Your task to perform on an android device: change alarm snooze length Image 0: 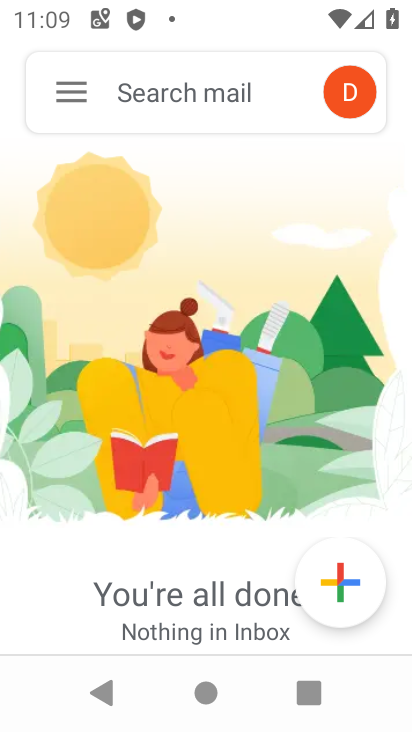
Step 0: press home button
Your task to perform on an android device: change alarm snooze length Image 1: 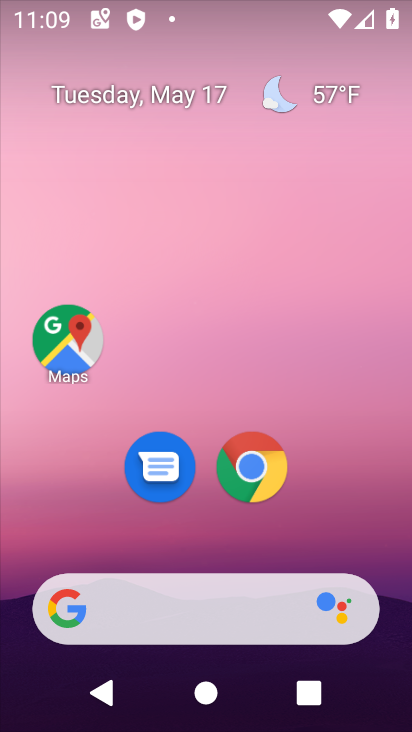
Step 1: drag from (258, 667) to (352, 107)
Your task to perform on an android device: change alarm snooze length Image 2: 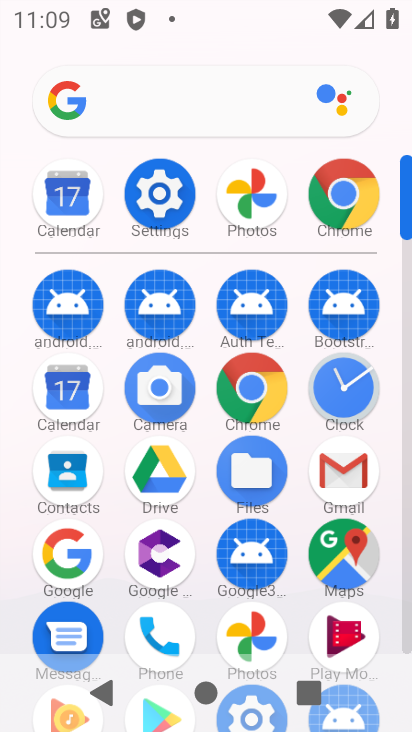
Step 2: click (340, 379)
Your task to perform on an android device: change alarm snooze length Image 3: 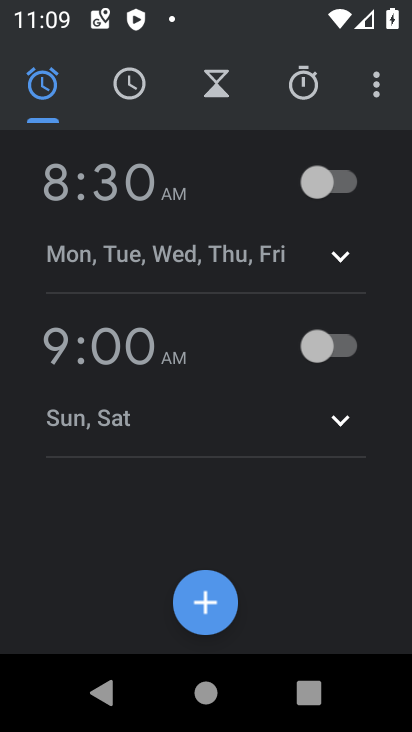
Step 3: click (372, 109)
Your task to perform on an android device: change alarm snooze length Image 4: 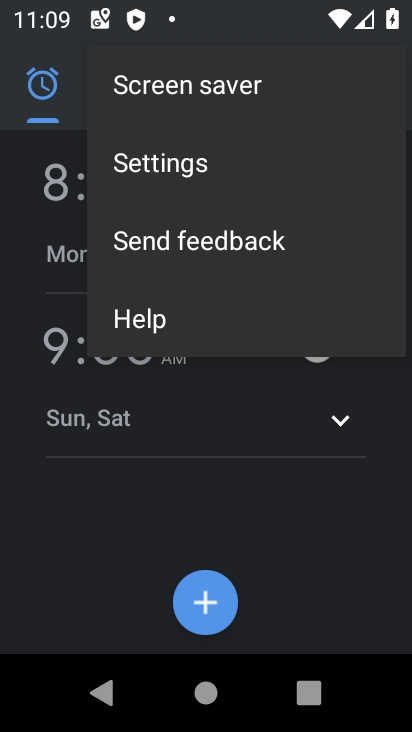
Step 4: click (192, 170)
Your task to perform on an android device: change alarm snooze length Image 5: 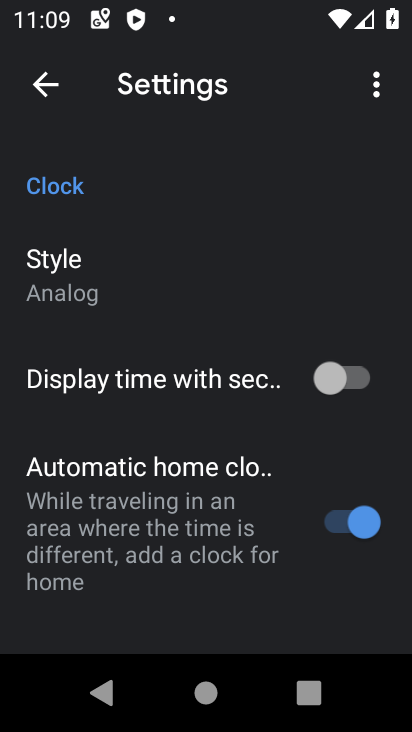
Step 5: drag from (187, 493) to (310, 268)
Your task to perform on an android device: change alarm snooze length Image 6: 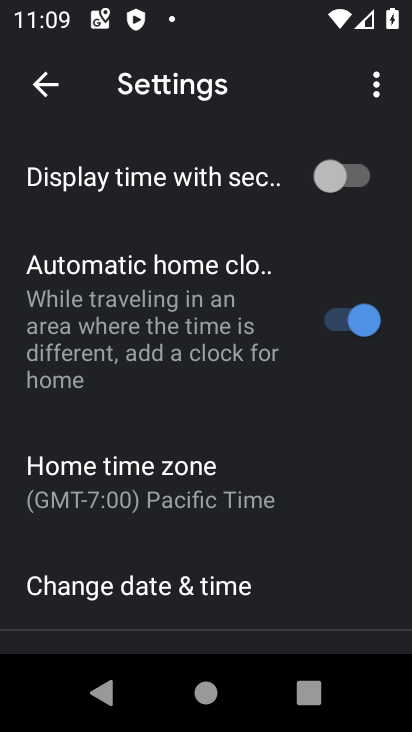
Step 6: drag from (198, 536) to (212, 413)
Your task to perform on an android device: change alarm snooze length Image 7: 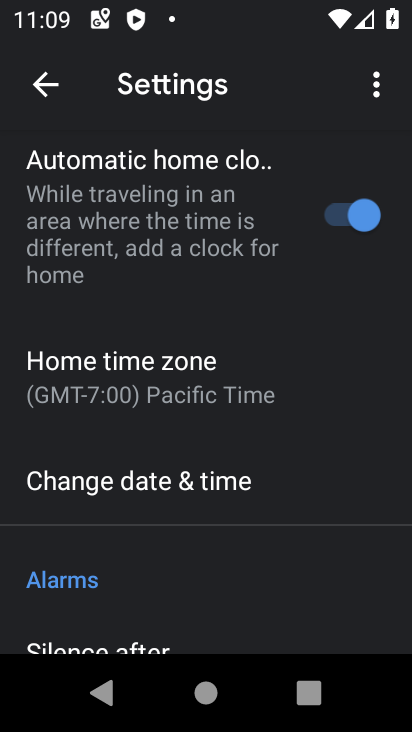
Step 7: drag from (175, 526) to (248, 296)
Your task to perform on an android device: change alarm snooze length Image 8: 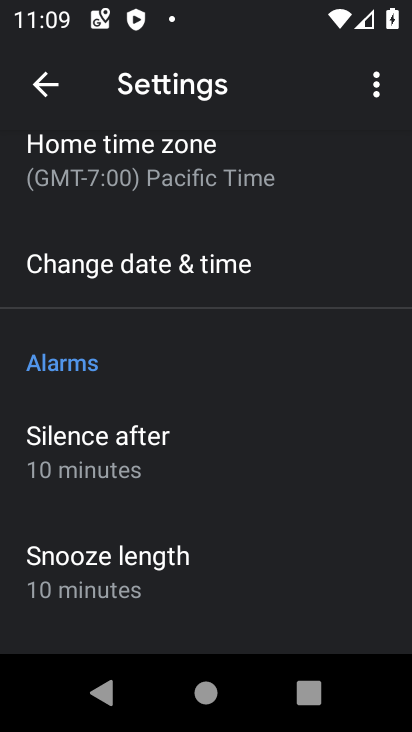
Step 8: click (124, 536)
Your task to perform on an android device: change alarm snooze length Image 9: 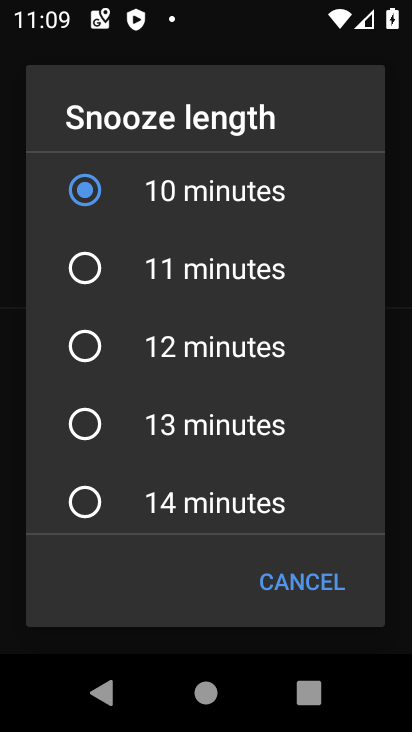
Step 9: click (170, 417)
Your task to perform on an android device: change alarm snooze length Image 10: 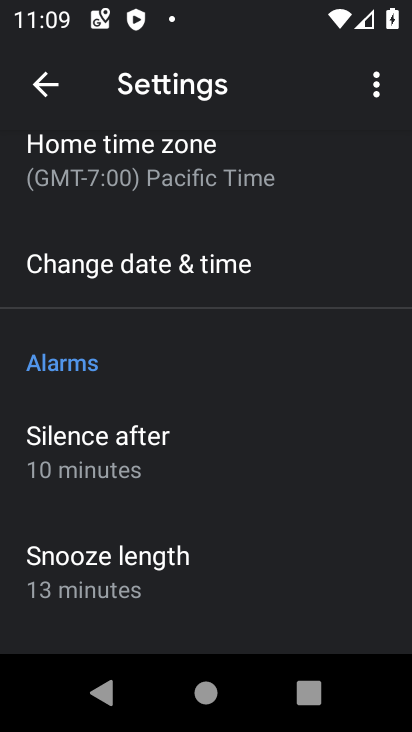
Step 10: task complete